Your task to perform on an android device: Open Reddit.com Image 0: 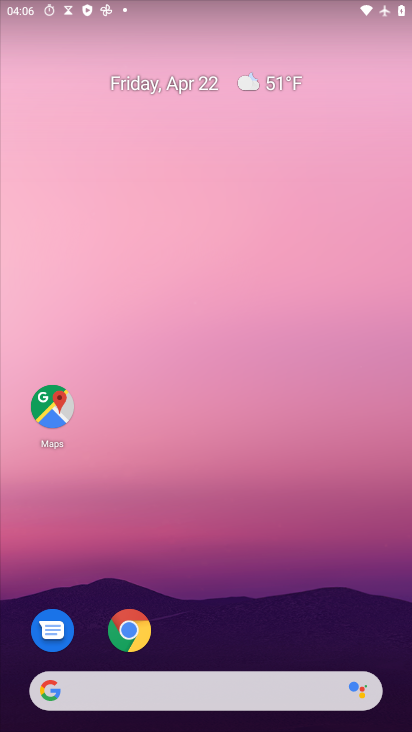
Step 0: drag from (298, 502) to (287, 38)
Your task to perform on an android device: Open Reddit.com Image 1: 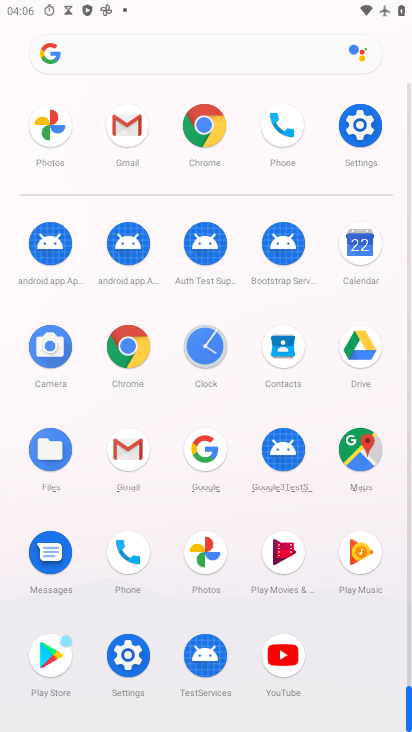
Step 1: drag from (3, 489) to (15, 260)
Your task to perform on an android device: Open Reddit.com Image 2: 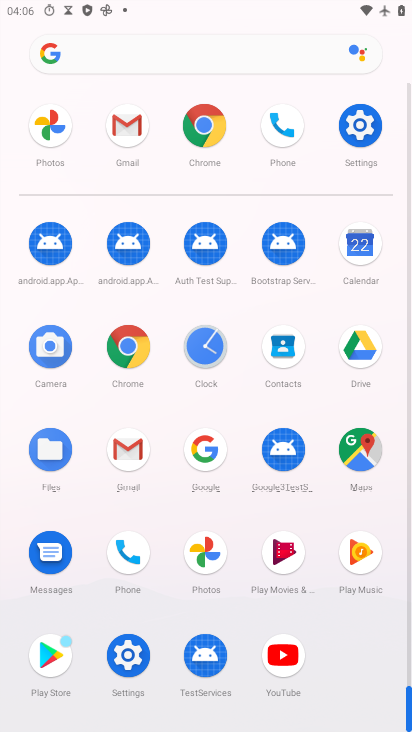
Step 2: click (127, 350)
Your task to perform on an android device: Open Reddit.com Image 3: 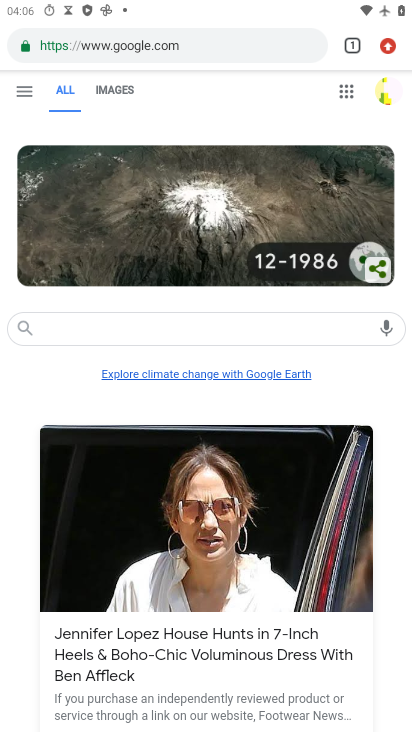
Step 3: click (153, 45)
Your task to perform on an android device: Open Reddit.com Image 4: 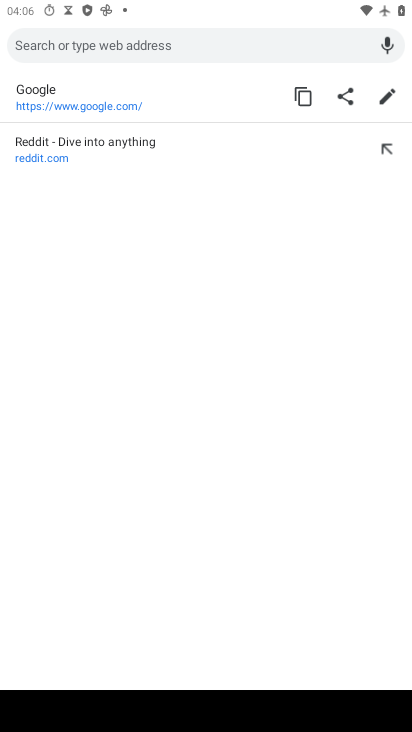
Step 4: click (85, 153)
Your task to perform on an android device: Open Reddit.com Image 5: 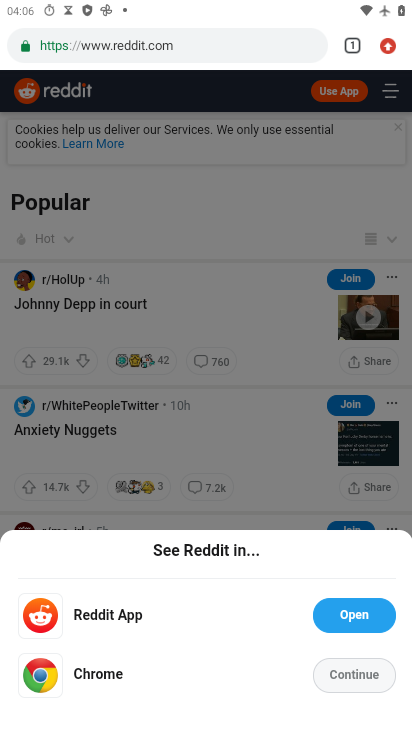
Step 5: task complete